Your task to perform on an android device: toggle show notifications on the lock screen Image 0: 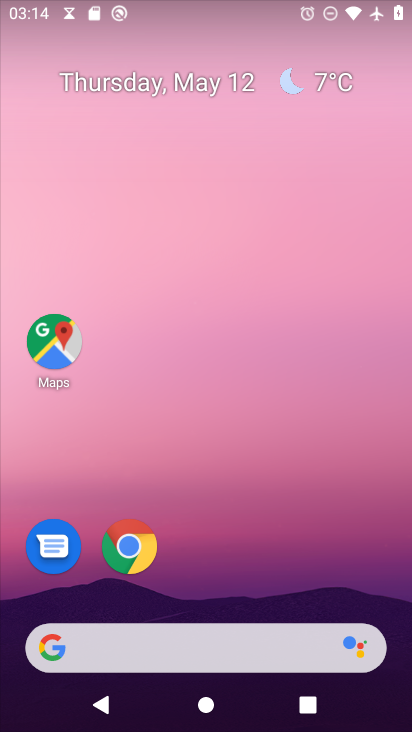
Step 0: press home button
Your task to perform on an android device: toggle show notifications on the lock screen Image 1: 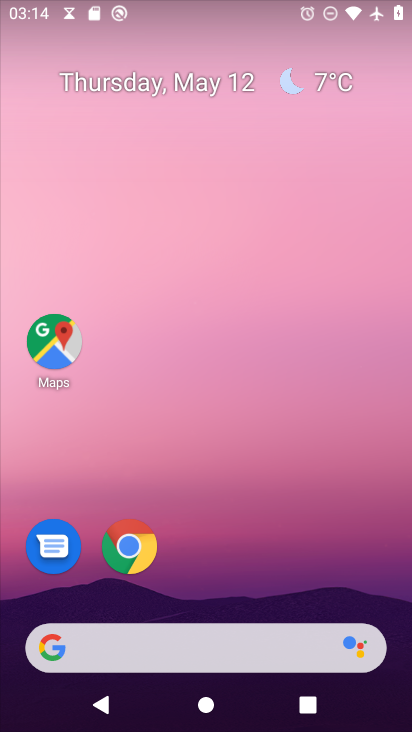
Step 1: drag from (117, 660) to (277, 182)
Your task to perform on an android device: toggle show notifications on the lock screen Image 2: 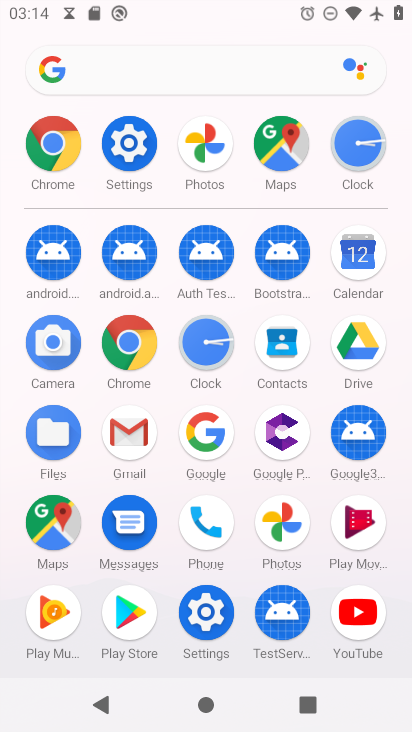
Step 2: click (142, 141)
Your task to perform on an android device: toggle show notifications on the lock screen Image 3: 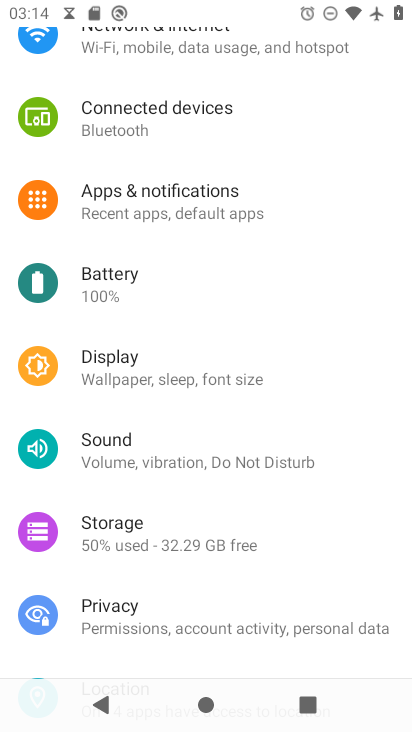
Step 3: click (194, 200)
Your task to perform on an android device: toggle show notifications on the lock screen Image 4: 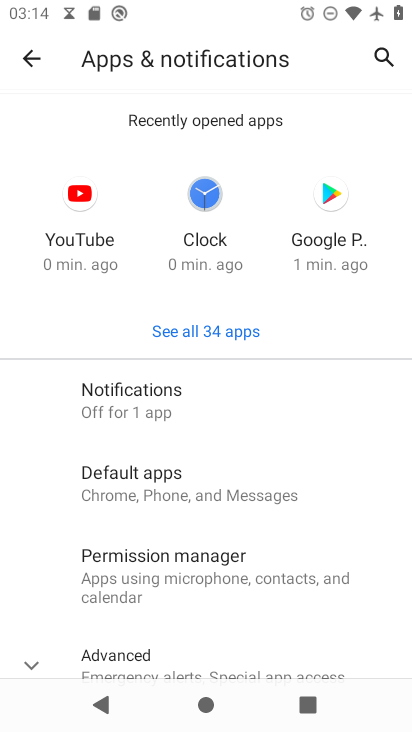
Step 4: click (137, 412)
Your task to perform on an android device: toggle show notifications on the lock screen Image 5: 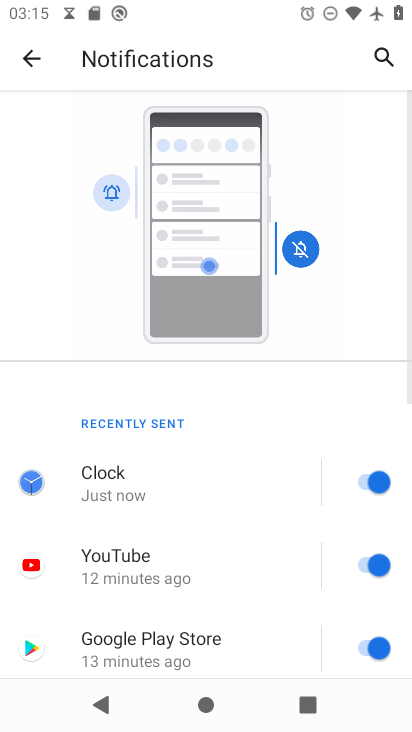
Step 5: drag from (205, 560) to (361, 127)
Your task to perform on an android device: toggle show notifications on the lock screen Image 6: 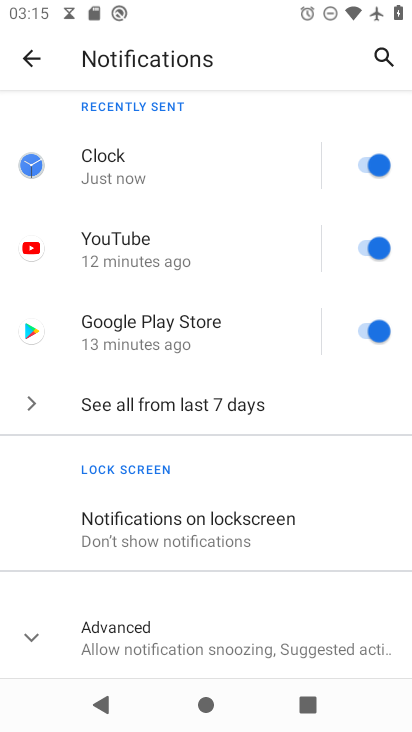
Step 6: click (206, 529)
Your task to perform on an android device: toggle show notifications on the lock screen Image 7: 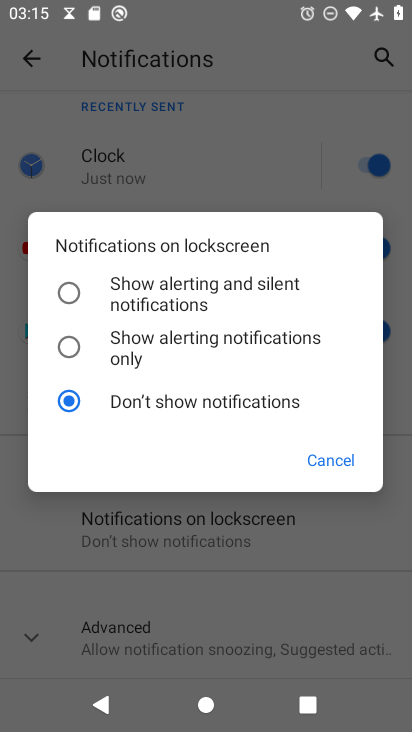
Step 7: click (67, 294)
Your task to perform on an android device: toggle show notifications on the lock screen Image 8: 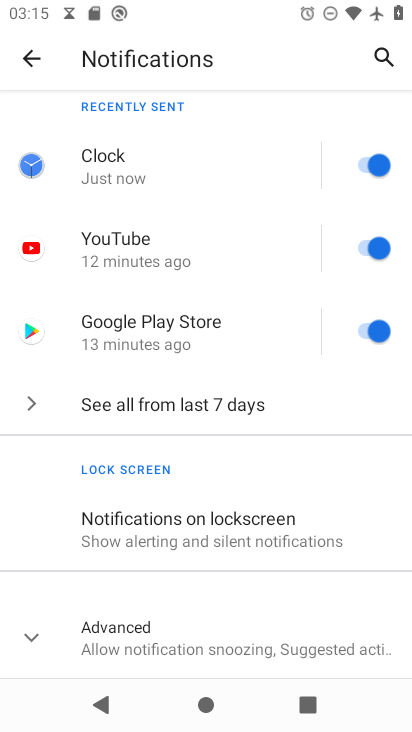
Step 8: task complete